Your task to perform on an android device: open chrome and create a bookmark for the current page Image 0: 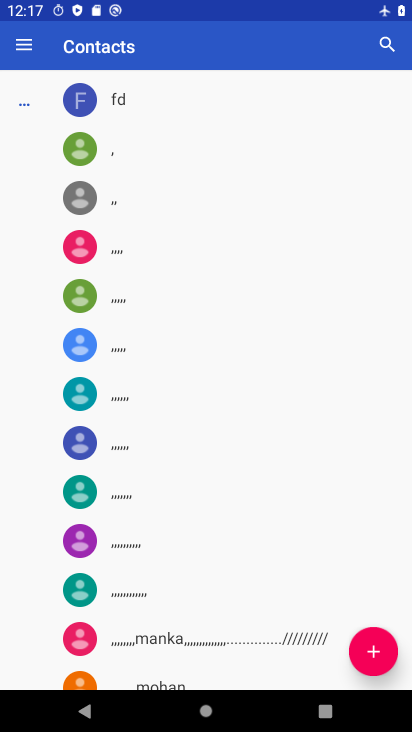
Step 0: press home button
Your task to perform on an android device: open chrome and create a bookmark for the current page Image 1: 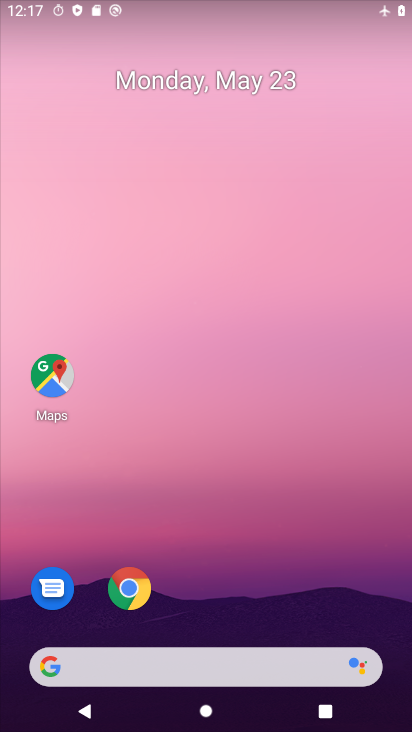
Step 1: click (131, 591)
Your task to perform on an android device: open chrome and create a bookmark for the current page Image 2: 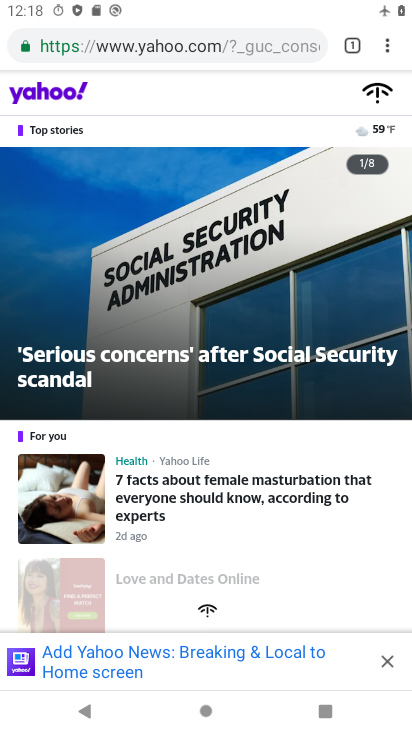
Step 2: click (385, 50)
Your task to perform on an android device: open chrome and create a bookmark for the current page Image 3: 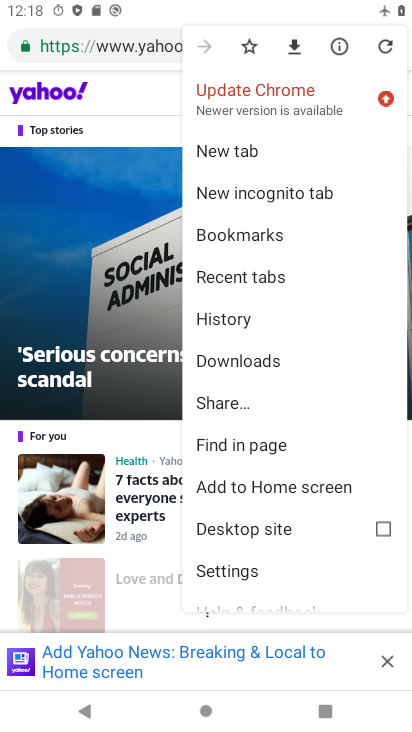
Step 3: click (247, 44)
Your task to perform on an android device: open chrome and create a bookmark for the current page Image 4: 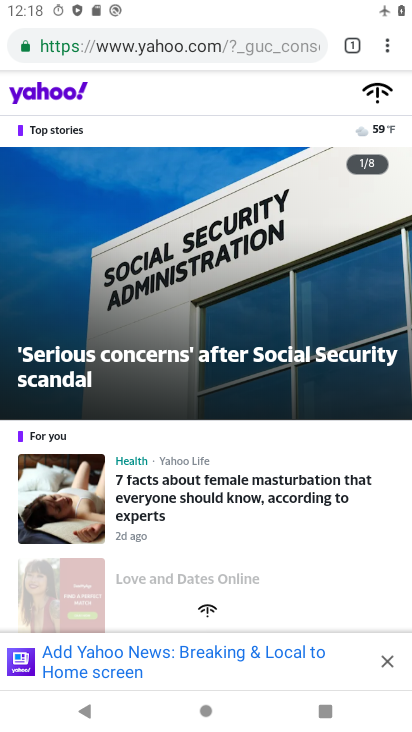
Step 4: task complete